Your task to perform on an android device: Go to calendar. Show me events next week Image 0: 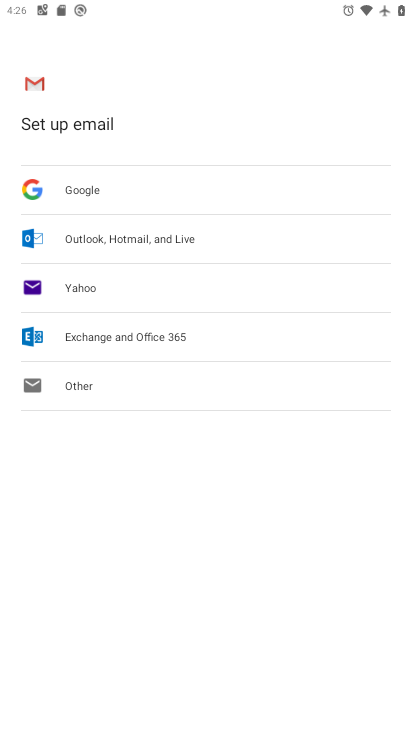
Step 0: press home button
Your task to perform on an android device: Go to calendar. Show me events next week Image 1: 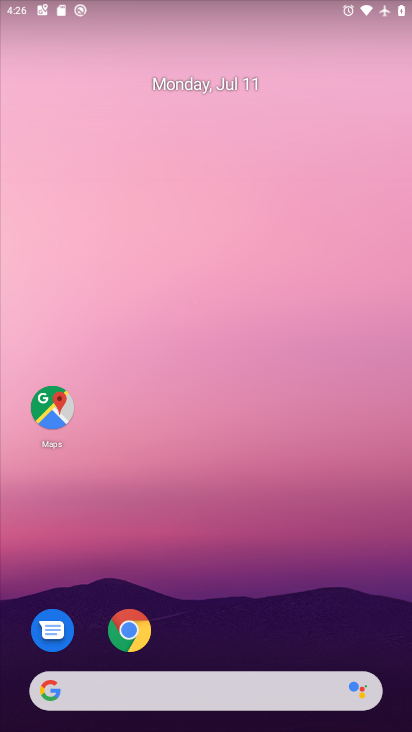
Step 1: drag from (289, 658) to (245, 144)
Your task to perform on an android device: Go to calendar. Show me events next week Image 2: 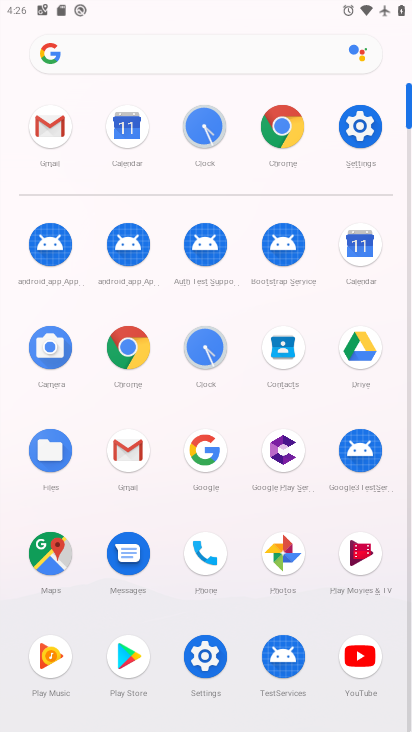
Step 2: click (190, 162)
Your task to perform on an android device: Go to calendar. Show me events next week Image 3: 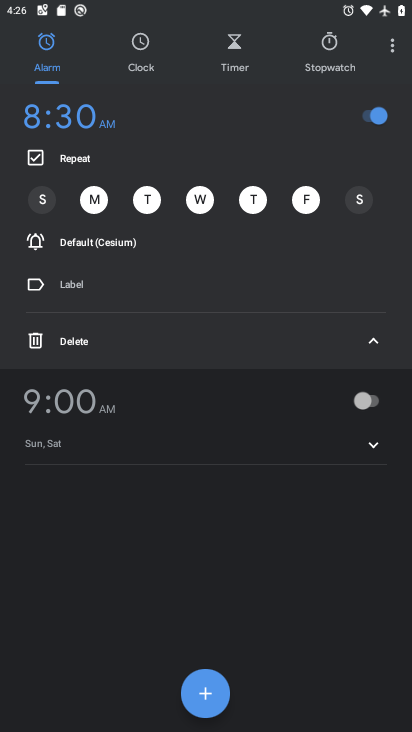
Step 3: task complete